Your task to perform on an android device: Open Chrome and go to settings Image 0: 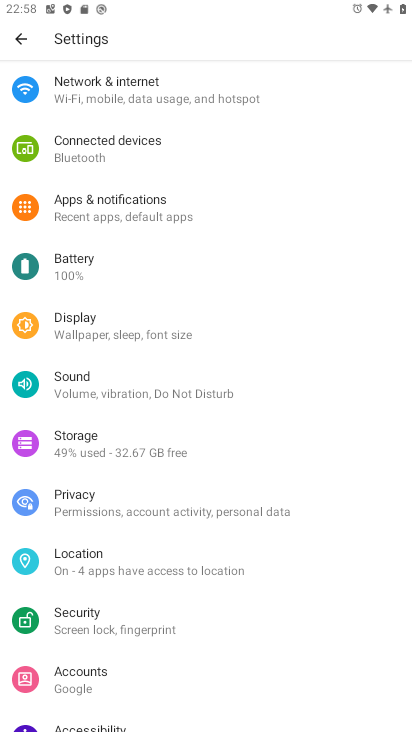
Step 0: press home button
Your task to perform on an android device: Open Chrome and go to settings Image 1: 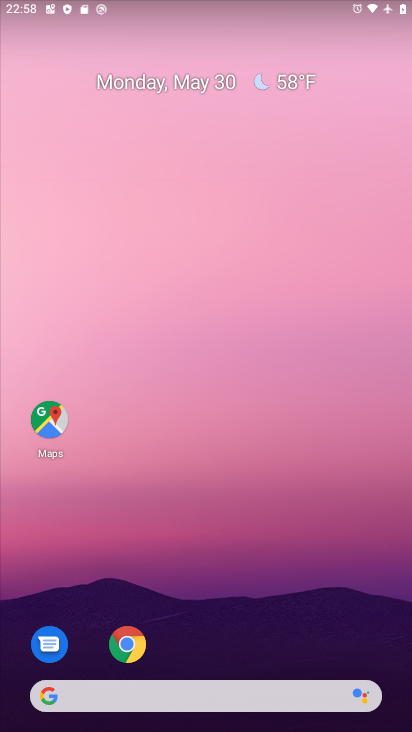
Step 1: click (129, 643)
Your task to perform on an android device: Open Chrome and go to settings Image 2: 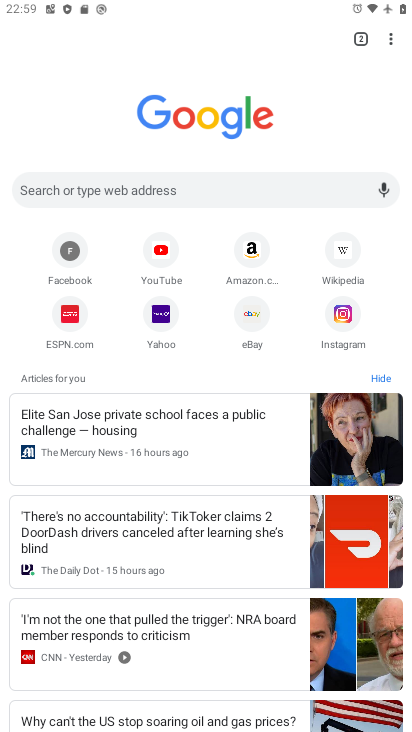
Step 2: click (389, 42)
Your task to perform on an android device: Open Chrome and go to settings Image 3: 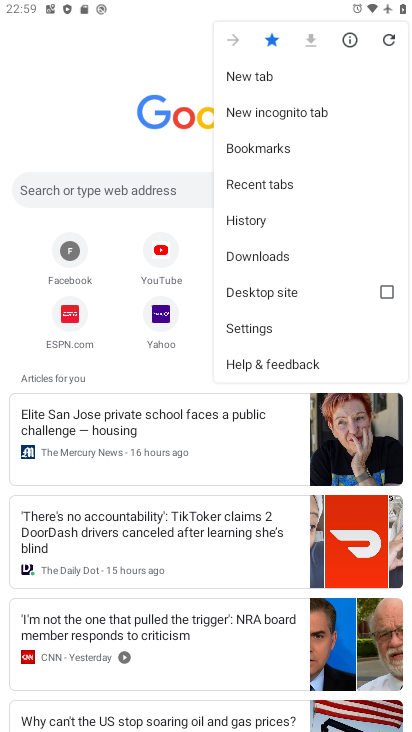
Step 3: click (261, 323)
Your task to perform on an android device: Open Chrome and go to settings Image 4: 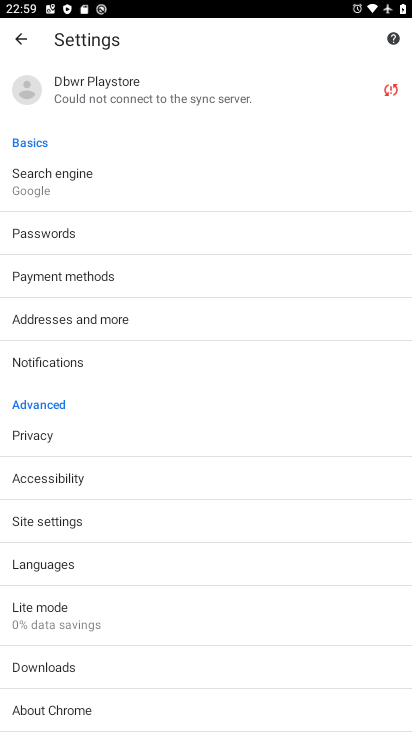
Step 4: task complete